Your task to perform on an android device: turn notification dots off Image 0: 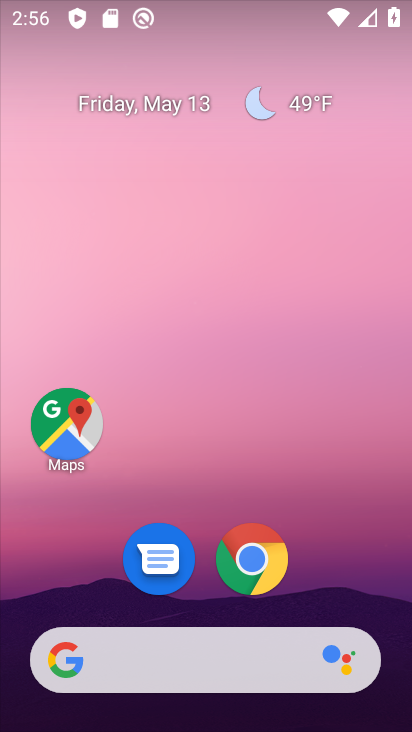
Step 0: drag from (344, 599) to (282, 254)
Your task to perform on an android device: turn notification dots off Image 1: 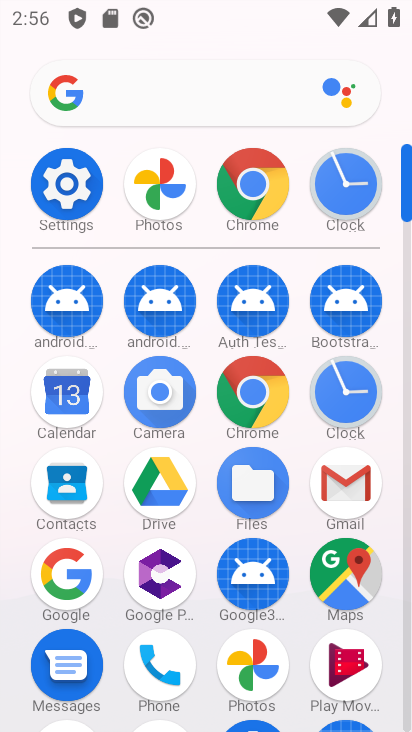
Step 1: click (405, 634)
Your task to perform on an android device: turn notification dots off Image 2: 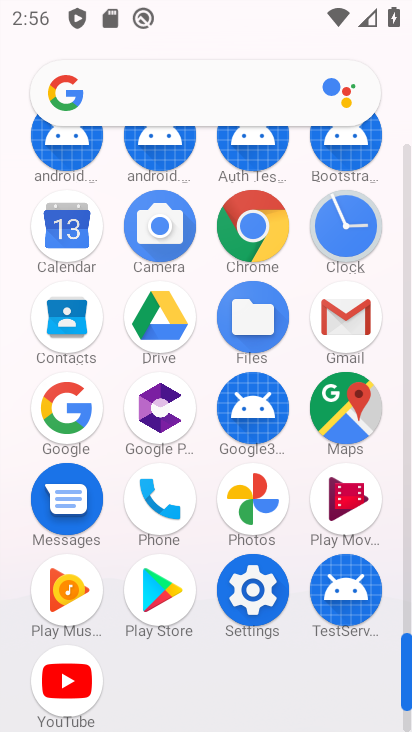
Step 2: click (248, 580)
Your task to perform on an android device: turn notification dots off Image 3: 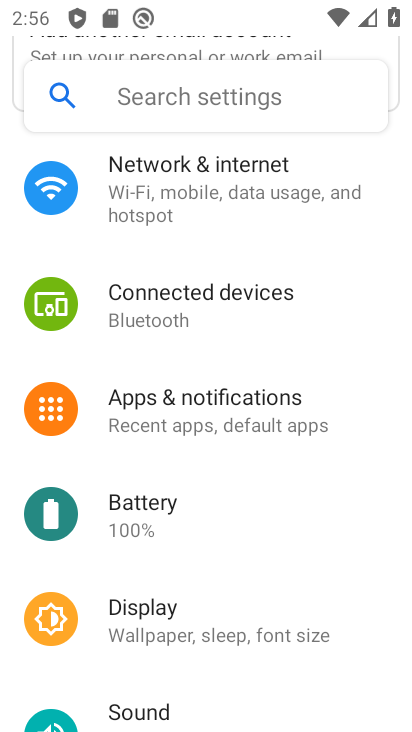
Step 3: click (243, 394)
Your task to perform on an android device: turn notification dots off Image 4: 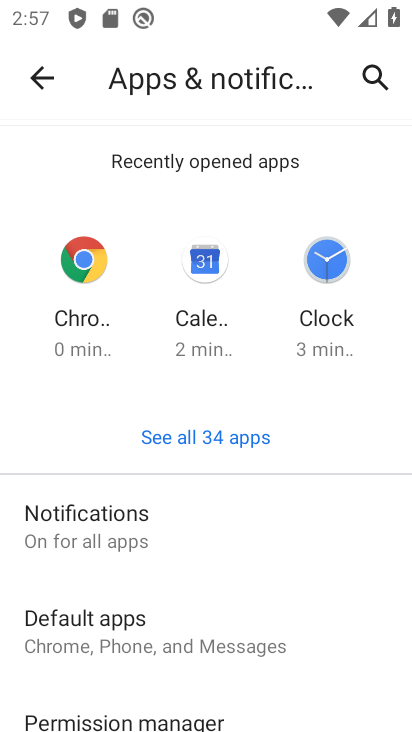
Step 4: click (99, 537)
Your task to perform on an android device: turn notification dots off Image 5: 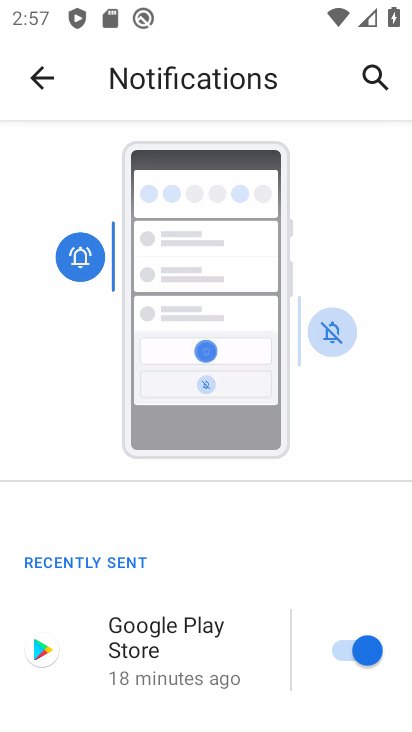
Step 5: drag from (283, 681) to (218, 387)
Your task to perform on an android device: turn notification dots off Image 6: 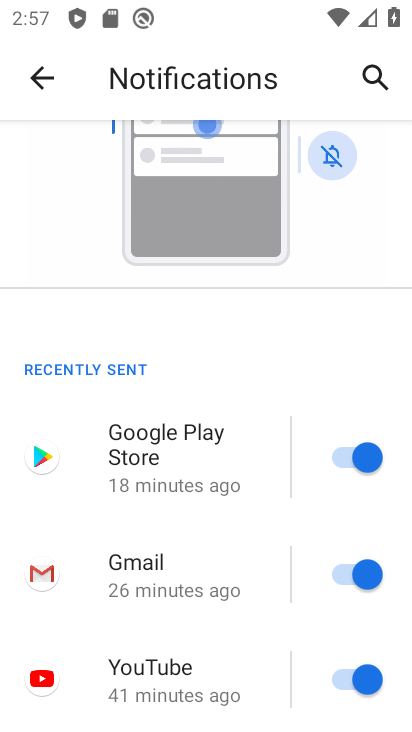
Step 6: drag from (276, 680) to (232, 392)
Your task to perform on an android device: turn notification dots off Image 7: 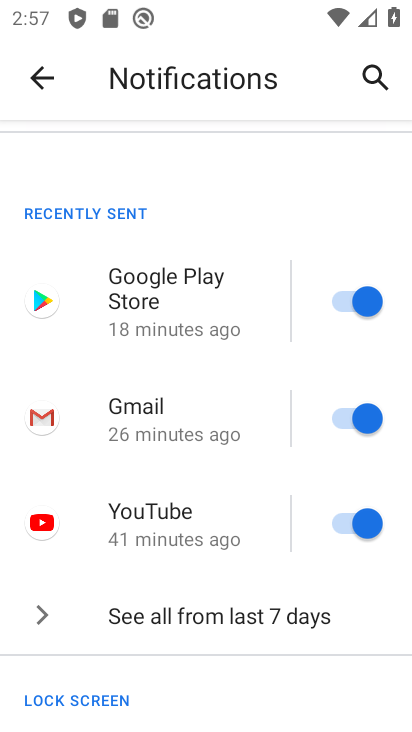
Step 7: drag from (272, 570) to (250, 248)
Your task to perform on an android device: turn notification dots off Image 8: 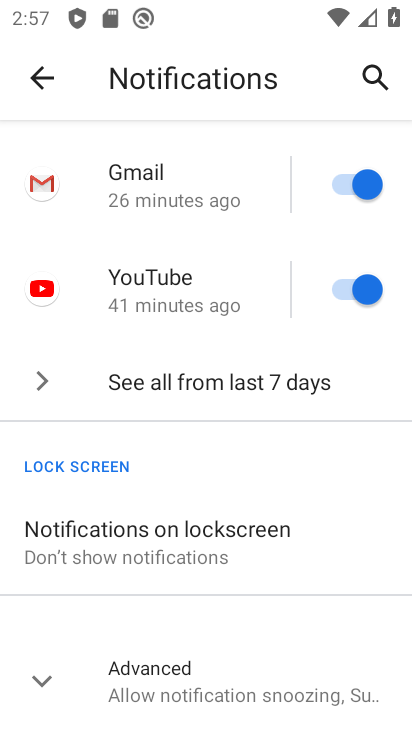
Step 8: click (43, 673)
Your task to perform on an android device: turn notification dots off Image 9: 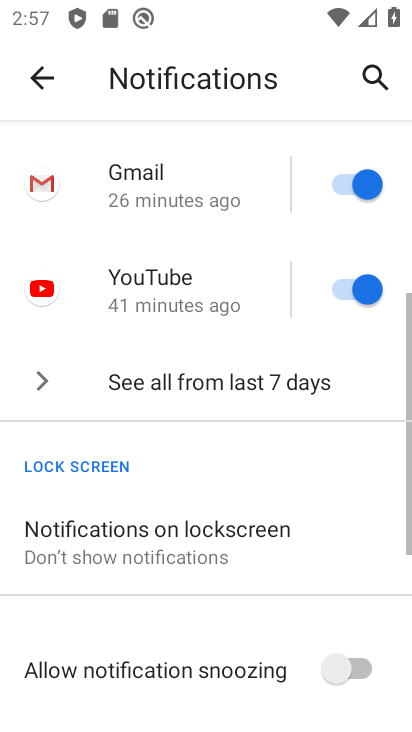
Step 9: task complete